Your task to perform on an android device: Add razer blackwidow to the cart on newegg.com Image 0: 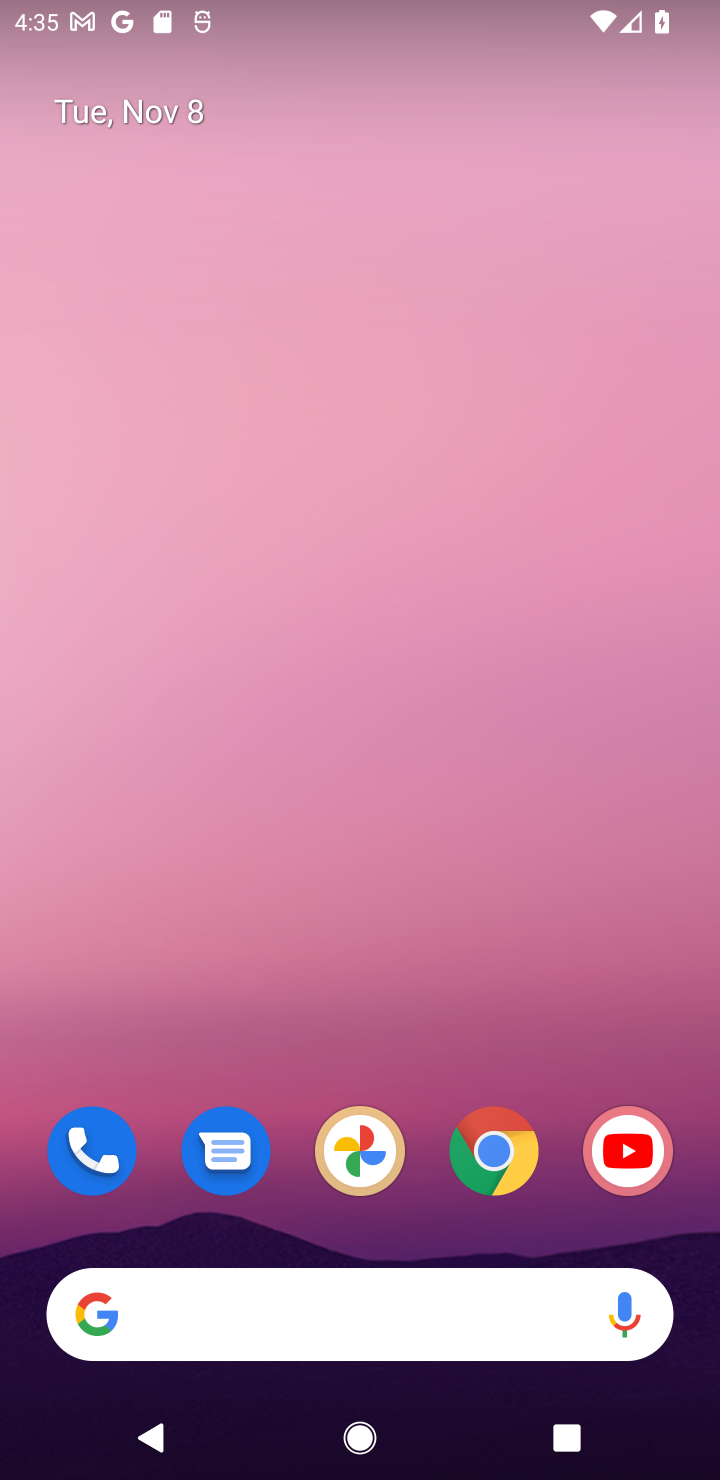
Step 0: drag from (430, 1059) to (366, 313)
Your task to perform on an android device: Add razer blackwidow to the cart on newegg.com Image 1: 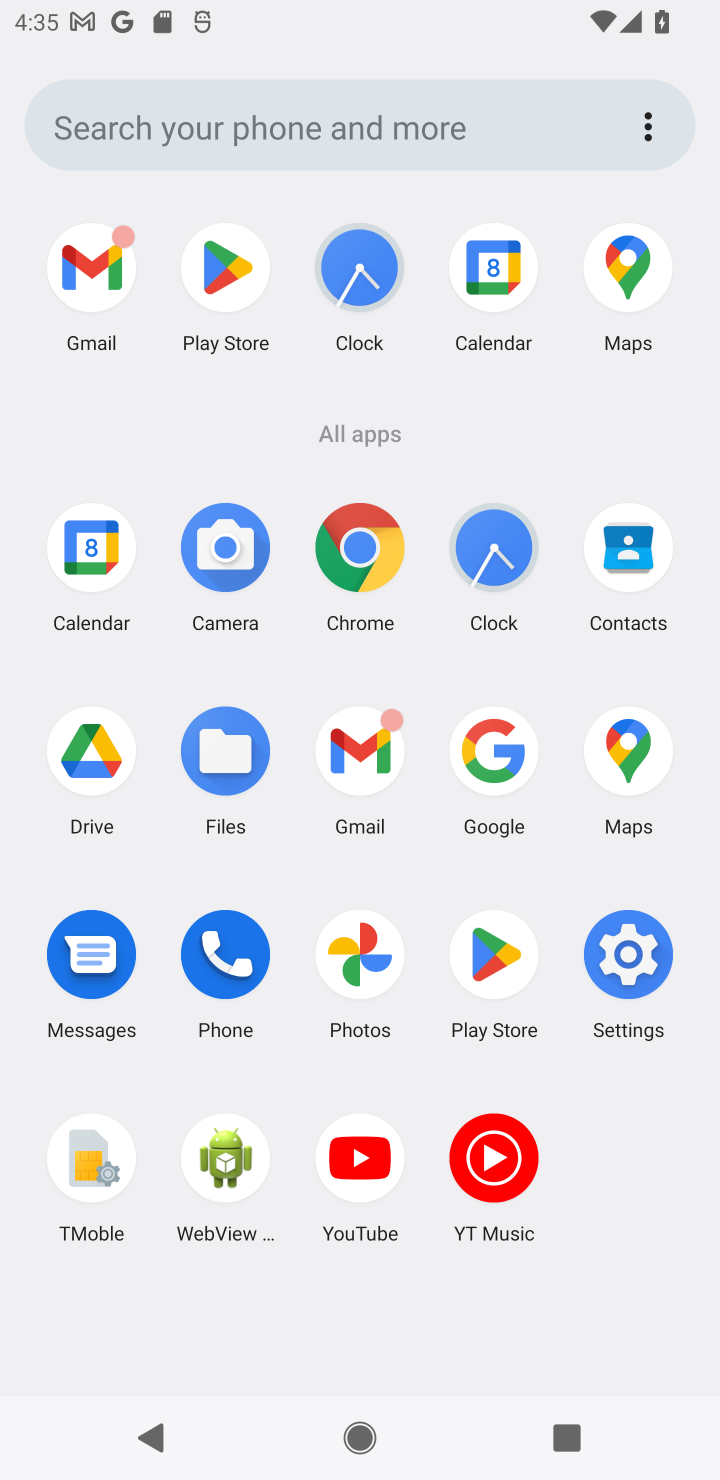
Step 1: click (353, 540)
Your task to perform on an android device: Add razer blackwidow to the cart on newegg.com Image 2: 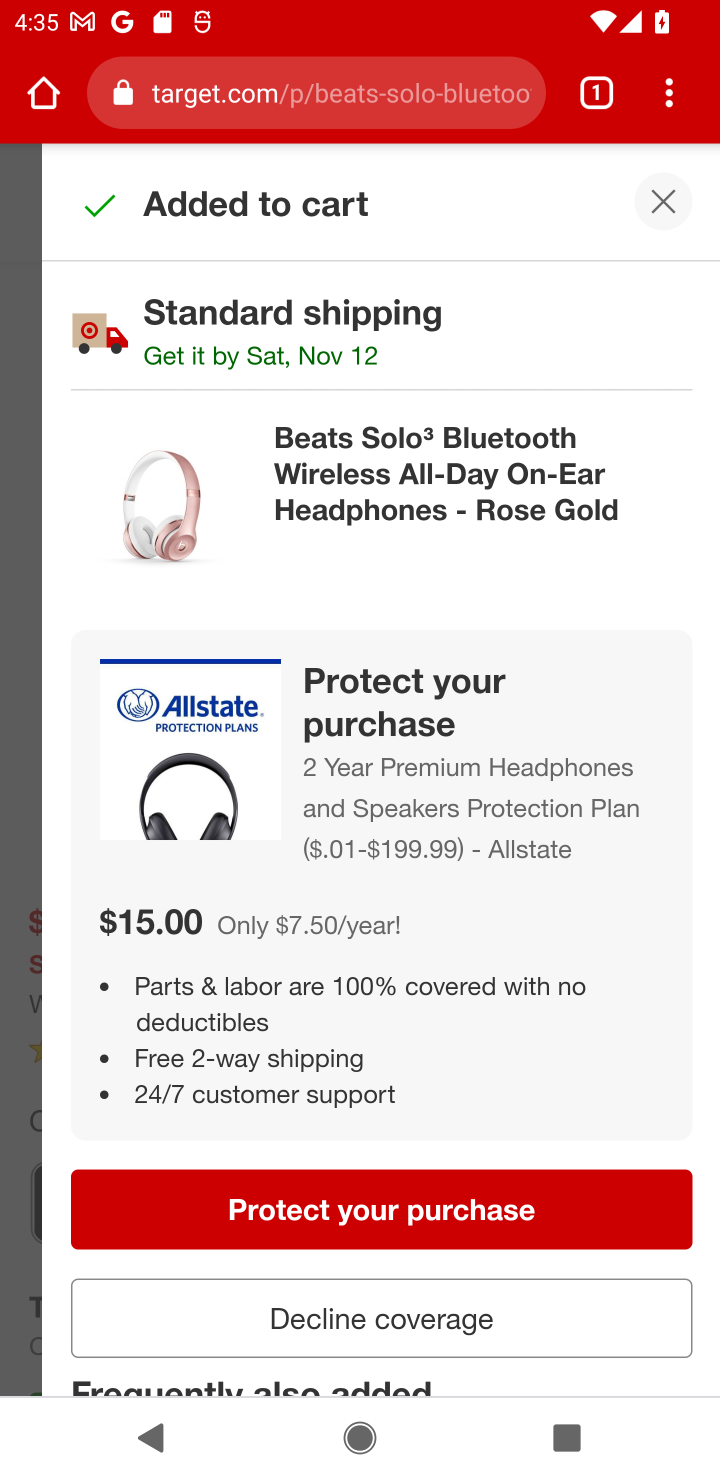
Step 2: click (423, 110)
Your task to perform on an android device: Add razer blackwidow to the cart on newegg.com Image 3: 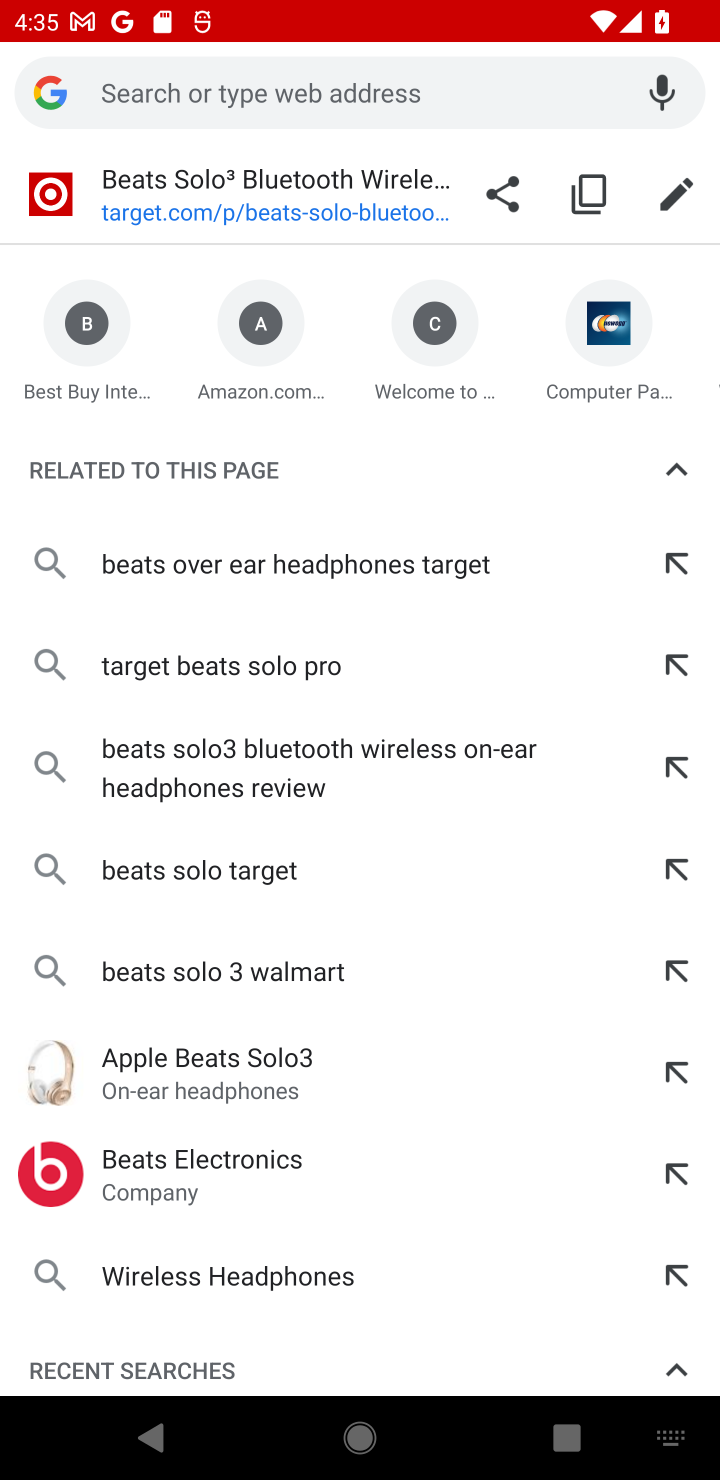
Step 3: type "newegg.com"
Your task to perform on an android device: Add razer blackwidow to the cart on newegg.com Image 4: 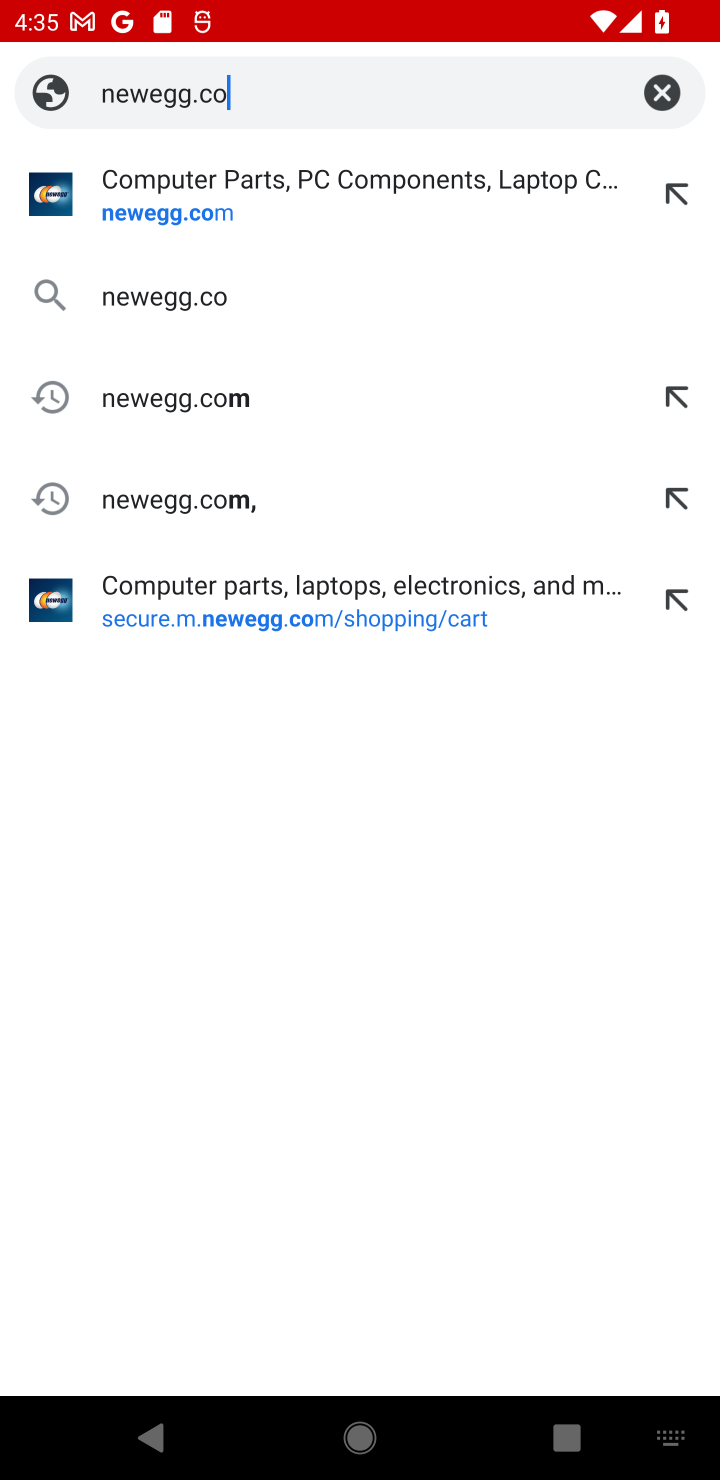
Step 4: press enter
Your task to perform on an android device: Add razer blackwidow to the cart on newegg.com Image 5: 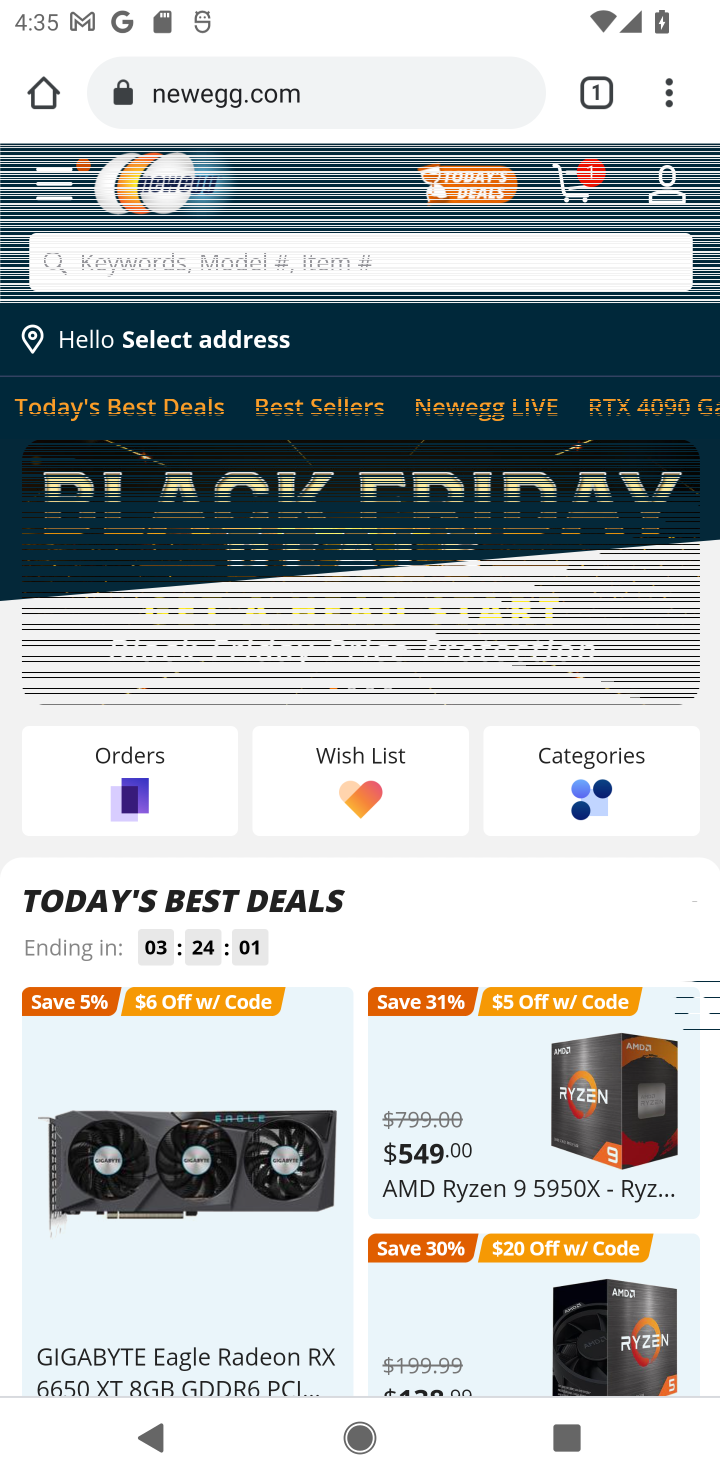
Step 5: click (523, 263)
Your task to perform on an android device: Add razer blackwidow to the cart on newegg.com Image 6: 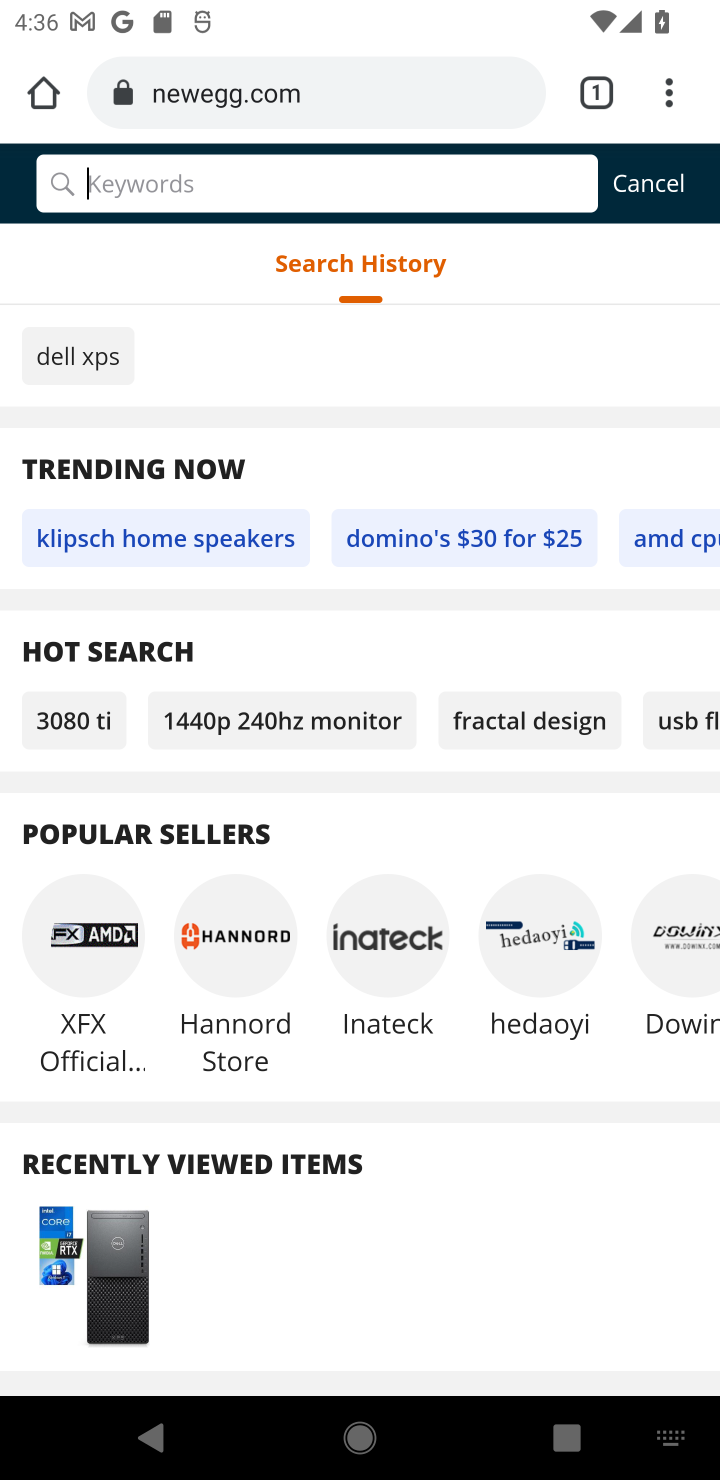
Step 6: type "razer blackwidow"
Your task to perform on an android device: Add razer blackwidow to the cart on newegg.com Image 7: 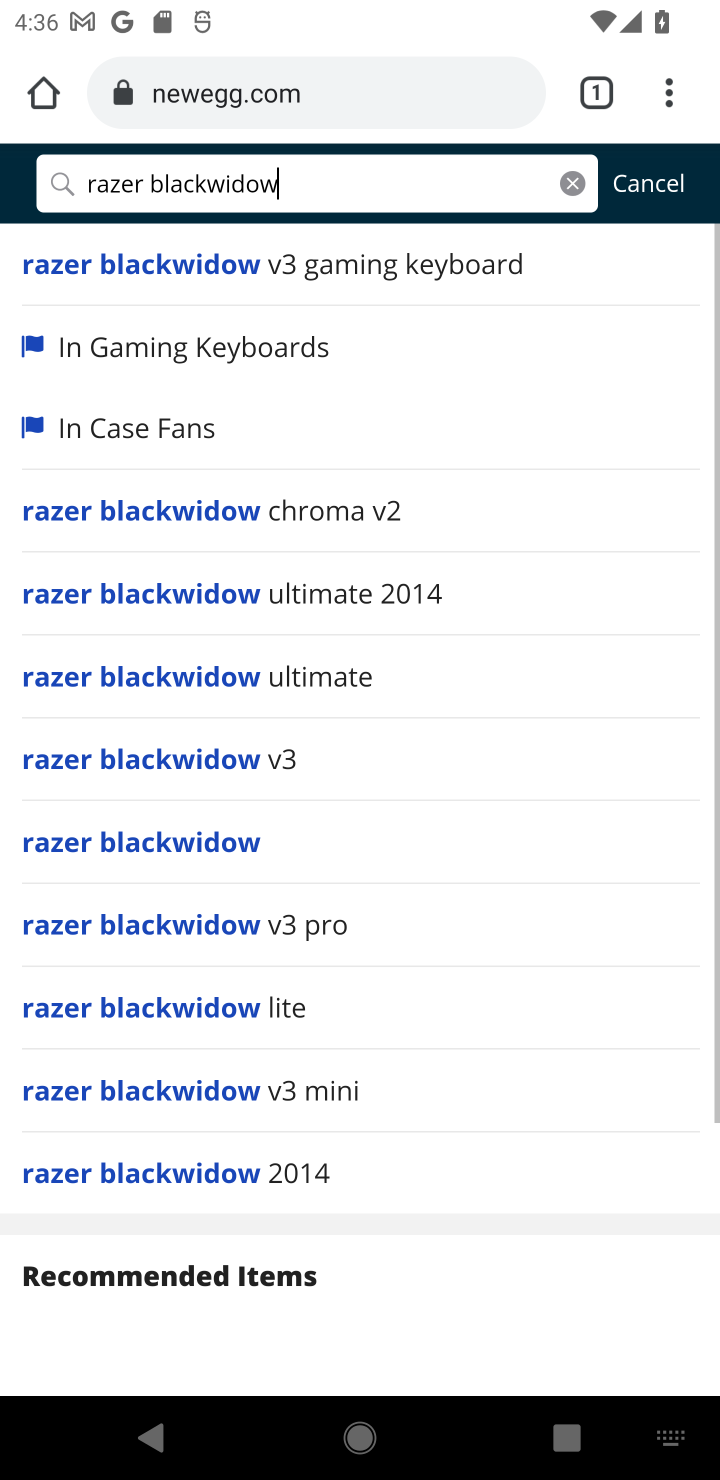
Step 7: press enter
Your task to perform on an android device: Add razer blackwidow to the cart on newegg.com Image 8: 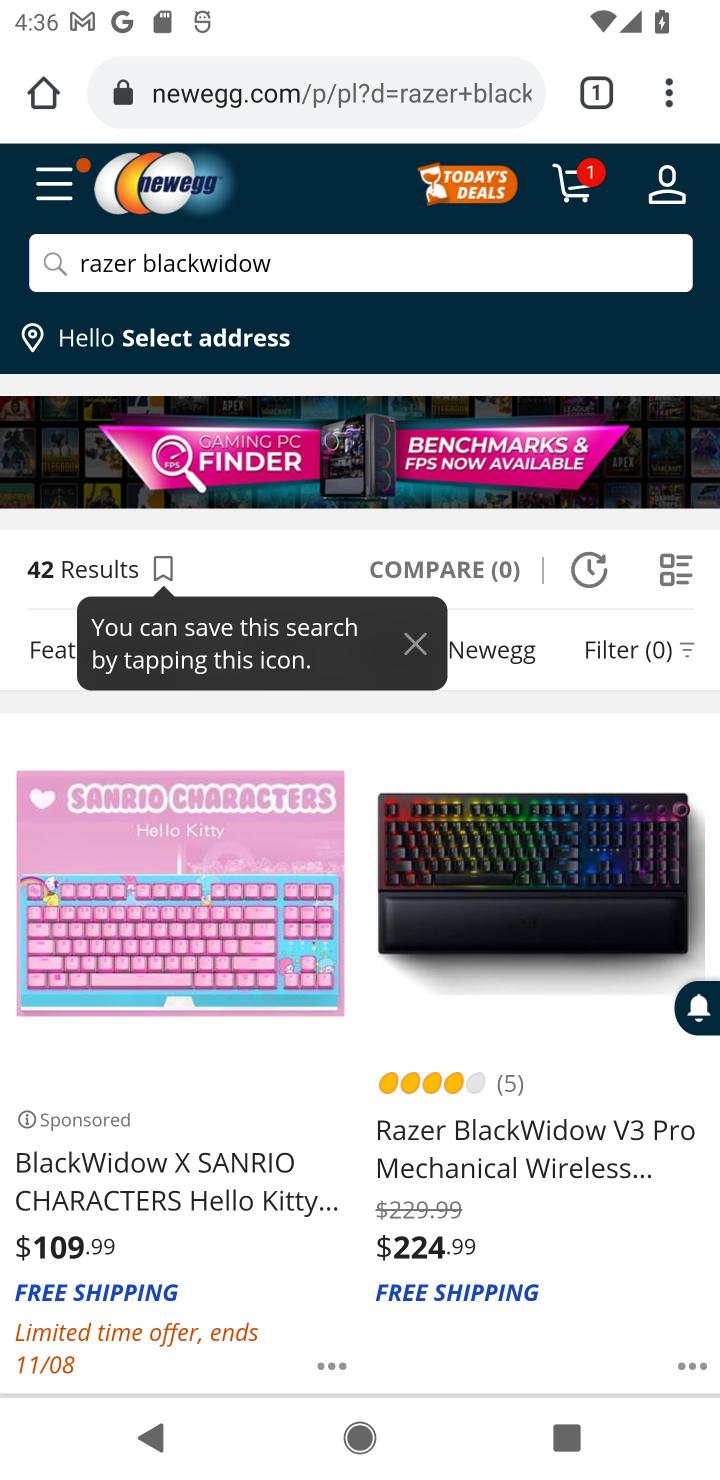
Step 8: click (488, 1157)
Your task to perform on an android device: Add razer blackwidow to the cart on newegg.com Image 9: 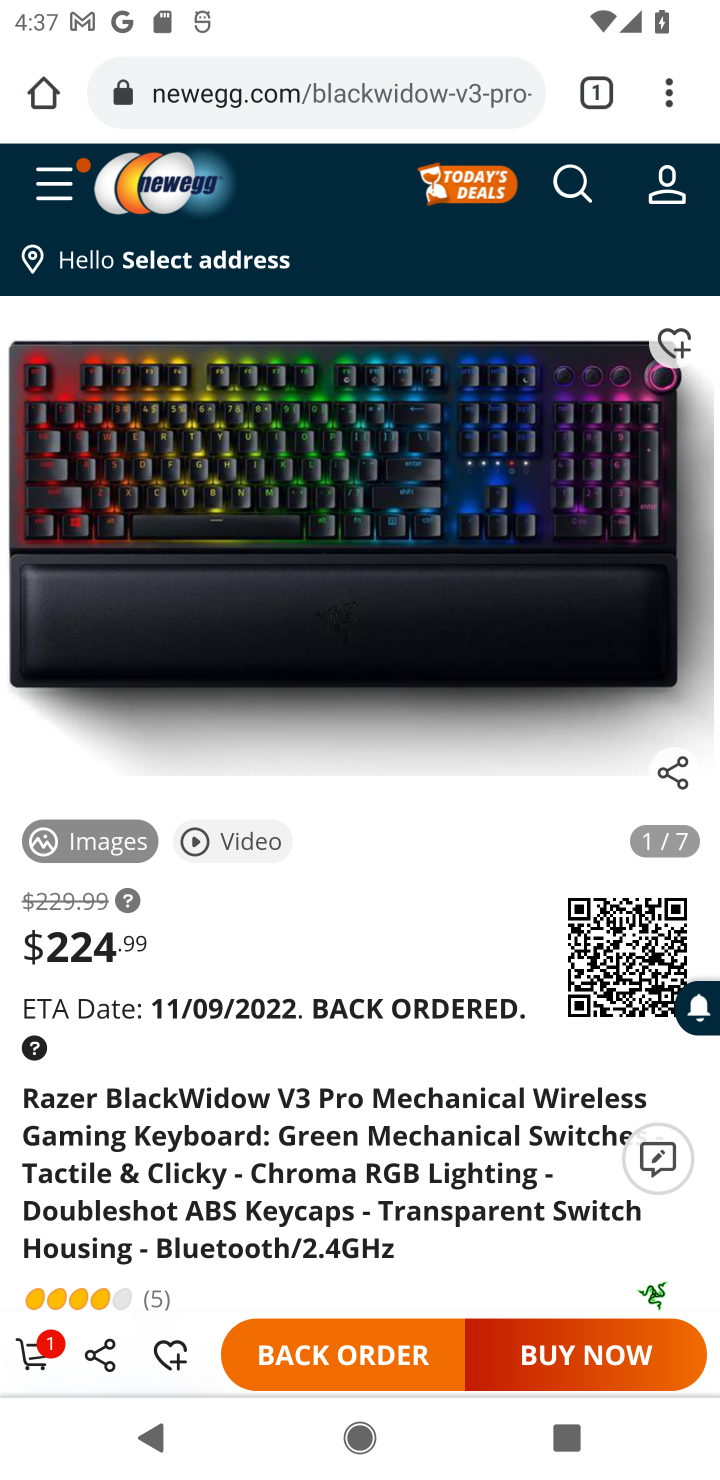
Step 9: drag from (443, 1250) to (394, 565)
Your task to perform on an android device: Add razer blackwidow to the cart on newegg.com Image 10: 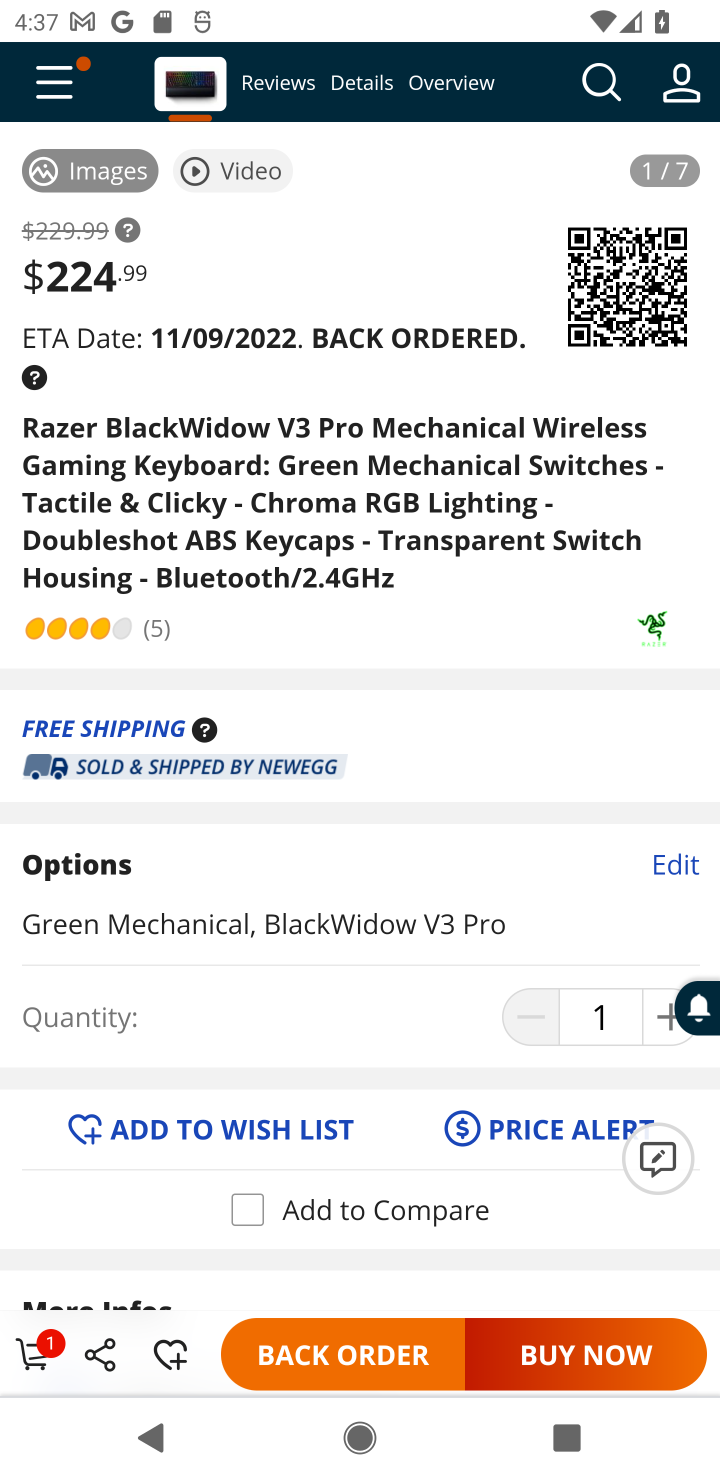
Step 10: click (64, 1351)
Your task to perform on an android device: Add razer blackwidow to the cart on newegg.com Image 11: 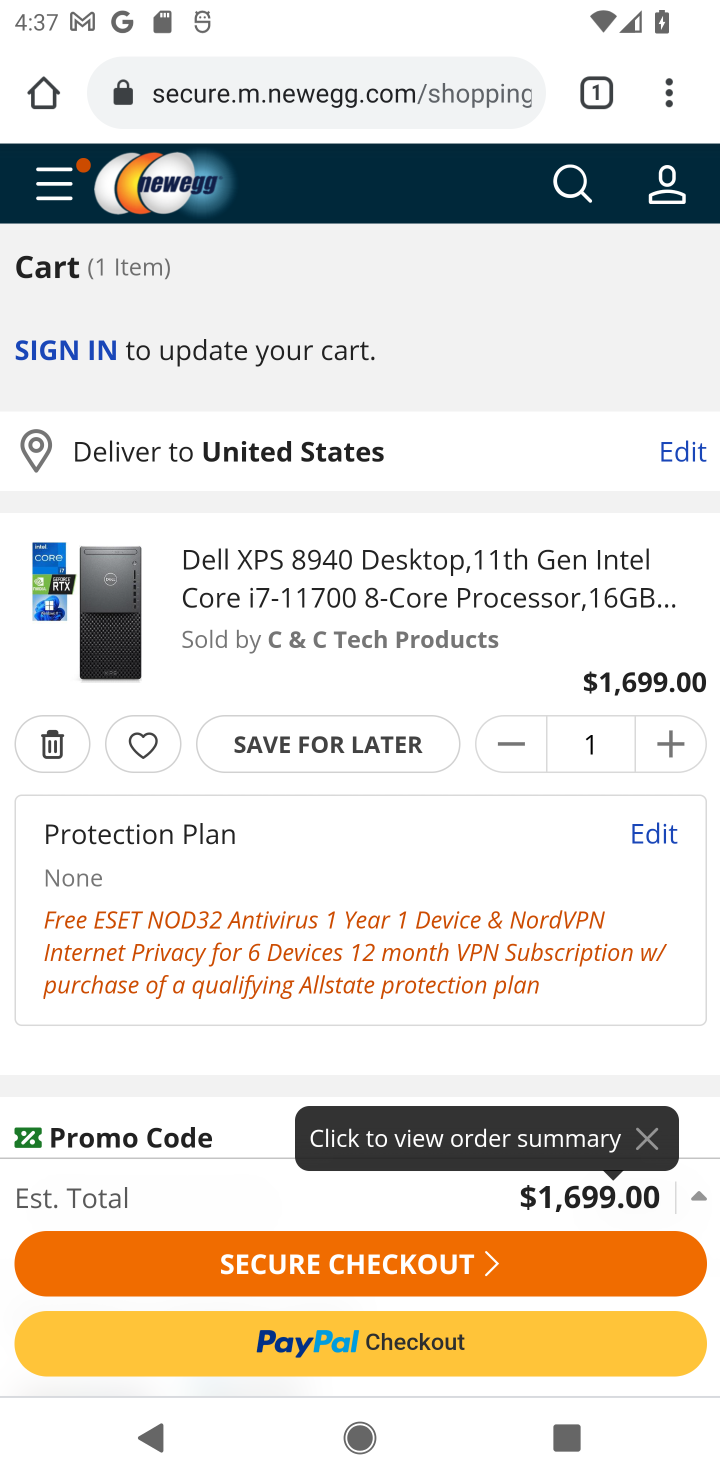
Step 11: press back button
Your task to perform on an android device: Add razer blackwidow to the cart on newegg.com Image 12: 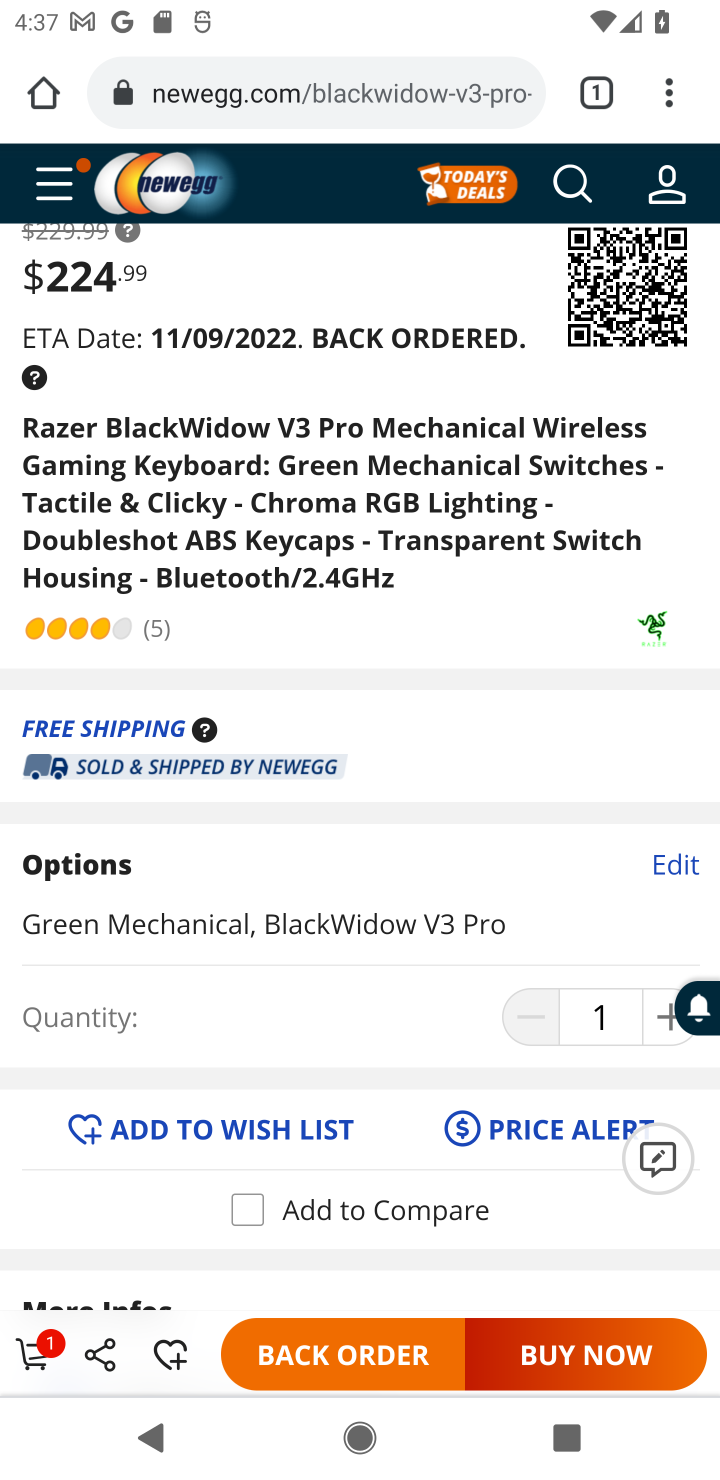
Step 12: drag from (482, 1236) to (442, 1469)
Your task to perform on an android device: Add razer blackwidow to the cart on newegg.com Image 13: 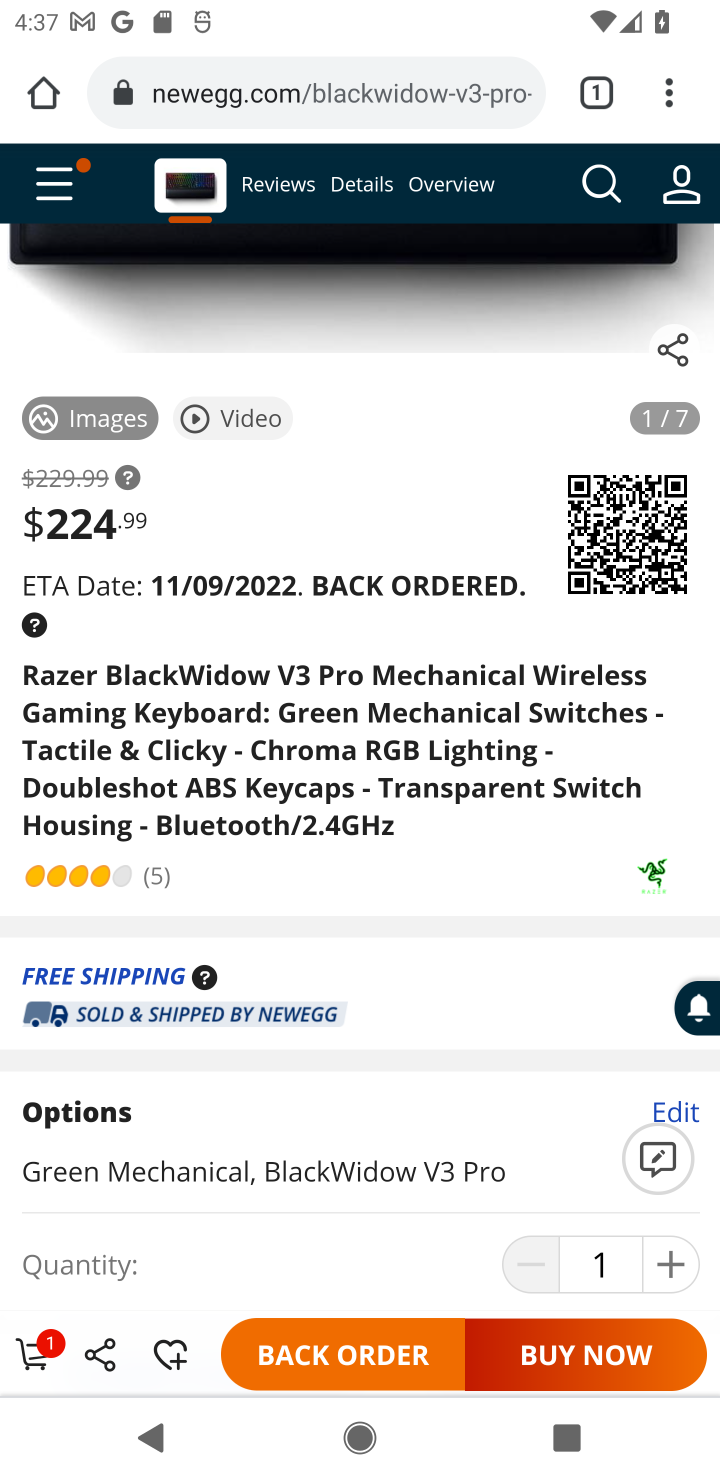
Step 13: drag from (448, 774) to (366, 388)
Your task to perform on an android device: Add razer blackwidow to the cart on newegg.com Image 14: 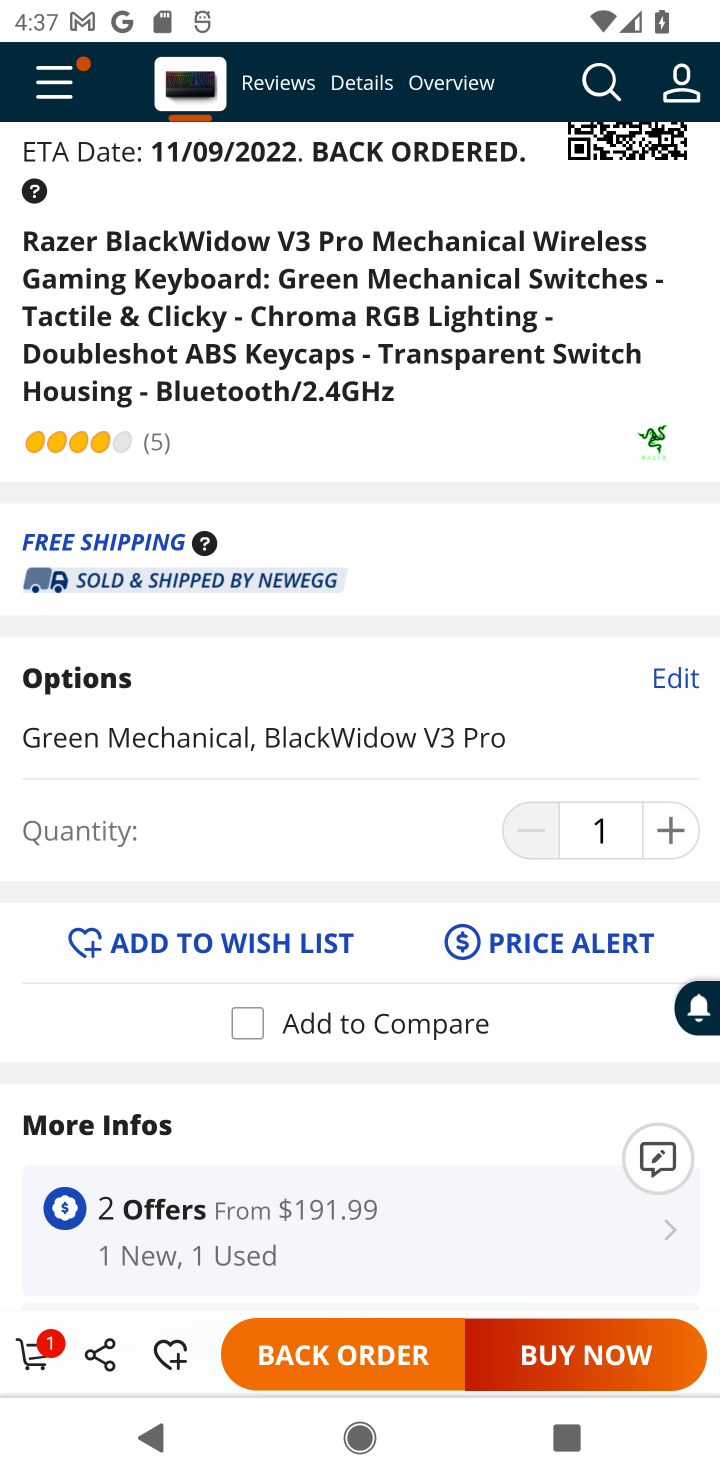
Step 14: drag from (420, 928) to (427, 410)
Your task to perform on an android device: Add razer blackwidow to the cart on newegg.com Image 15: 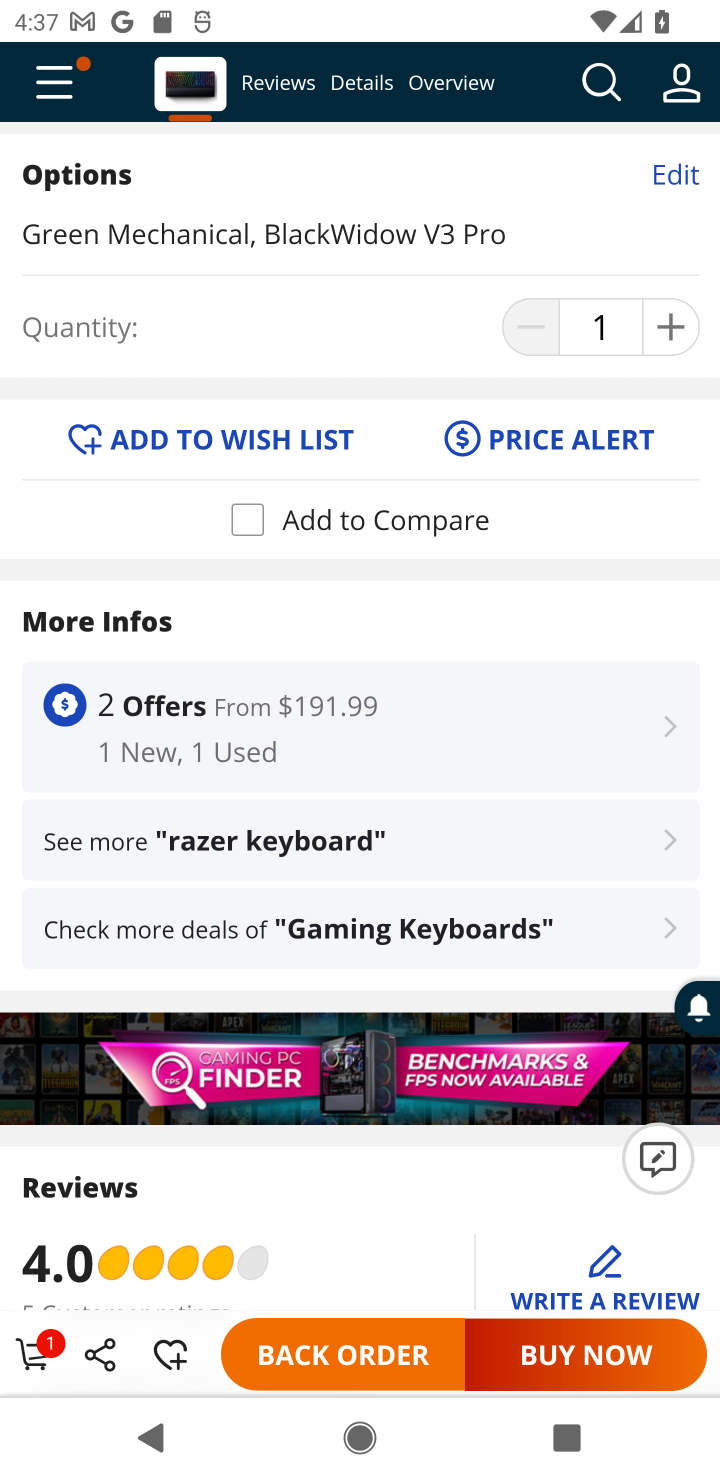
Step 15: drag from (306, 1206) to (305, 514)
Your task to perform on an android device: Add razer blackwidow to the cart on newegg.com Image 16: 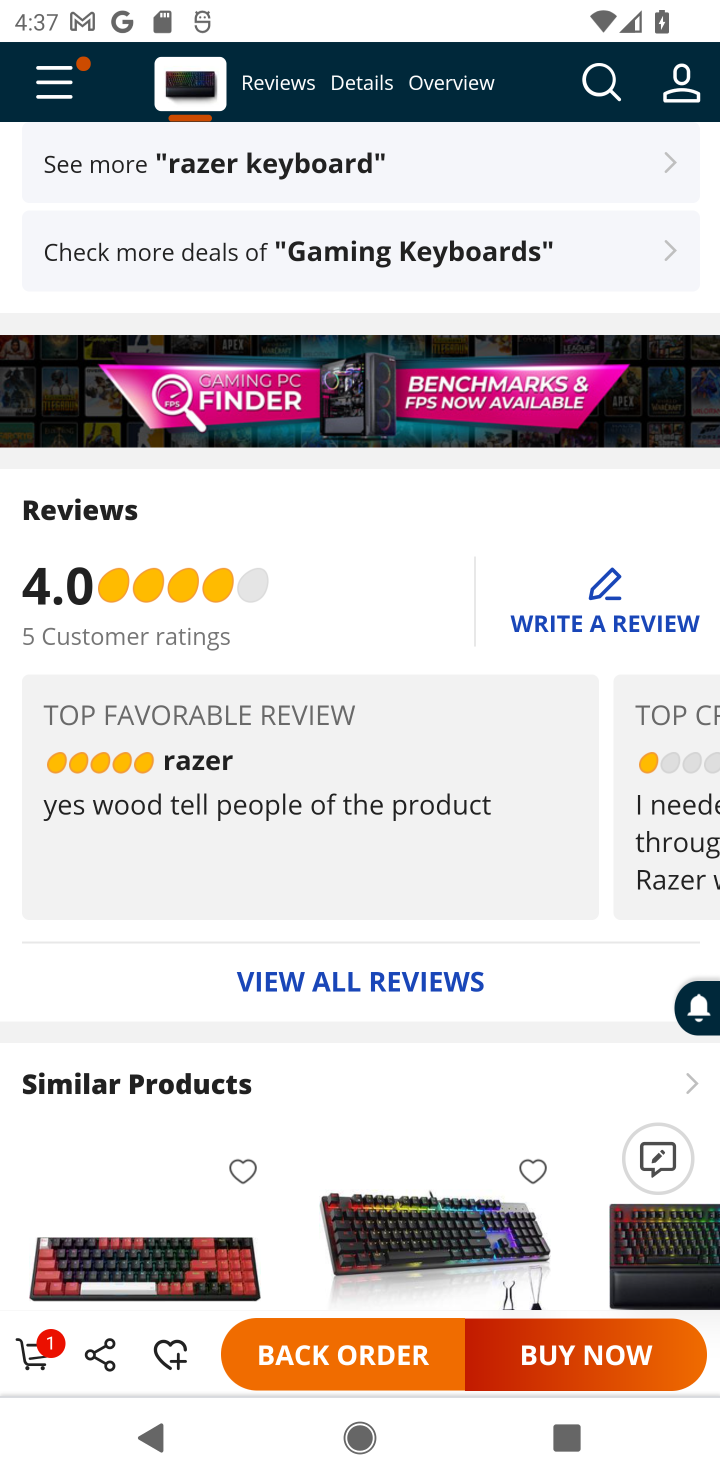
Step 16: click (594, 1361)
Your task to perform on an android device: Add razer blackwidow to the cart on newegg.com Image 17: 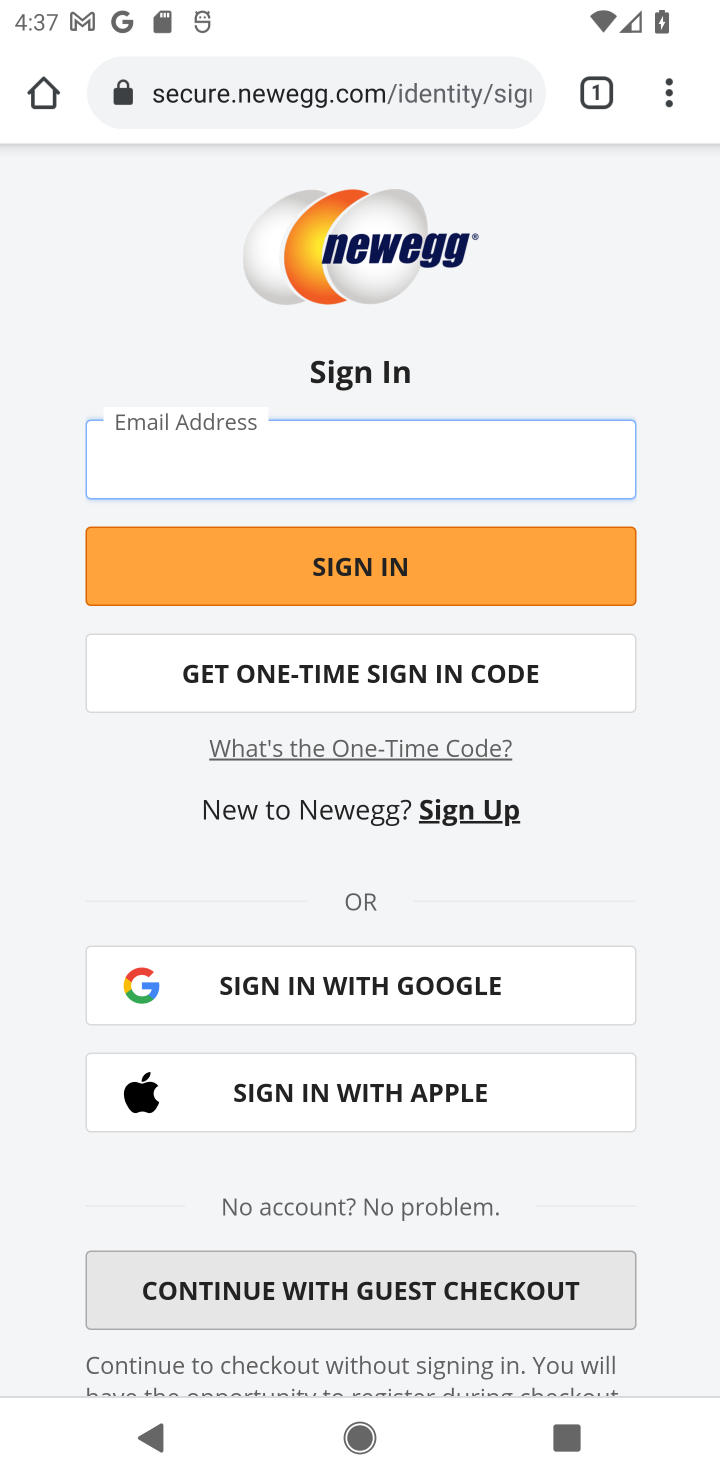
Step 17: task complete